Your task to perform on an android device: show emergency info Image 0: 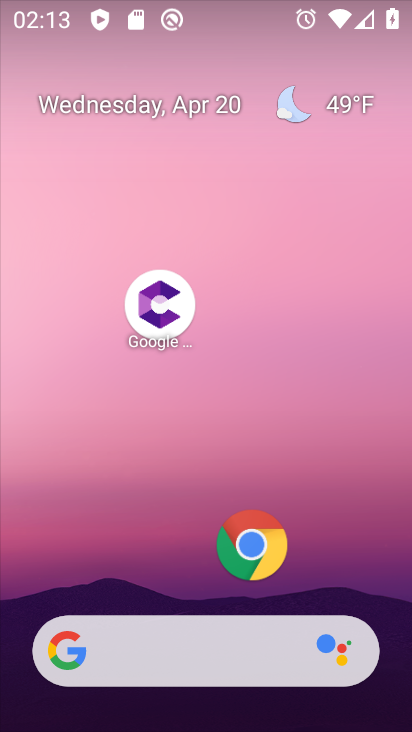
Step 0: drag from (168, 580) to (196, 59)
Your task to perform on an android device: show emergency info Image 1: 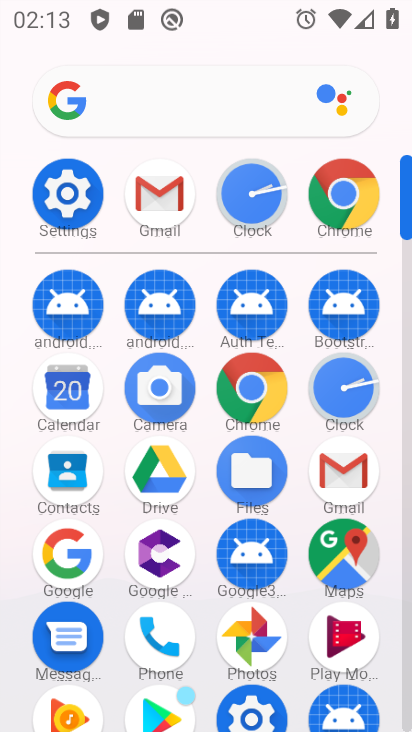
Step 1: click (66, 198)
Your task to perform on an android device: show emergency info Image 2: 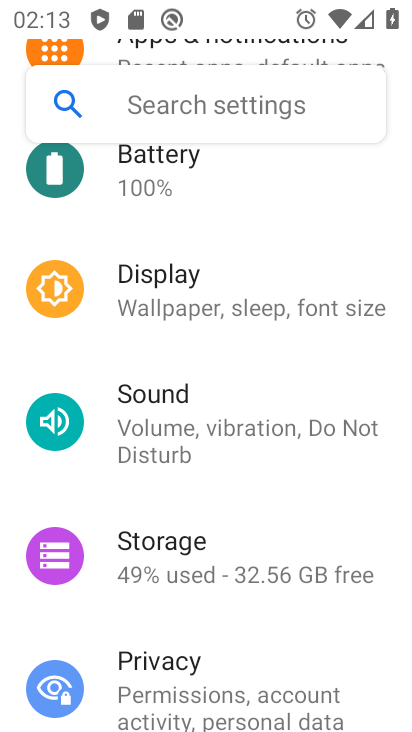
Step 2: drag from (214, 511) to (240, 385)
Your task to perform on an android device: show emergency info Image 3: 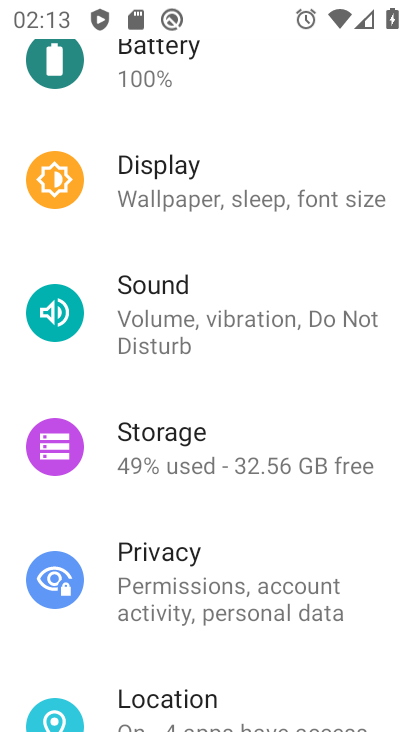
Step 3: drag from (218, 521) to (270, 409)
Your task to perform on an android device: show emergency info Image 4: 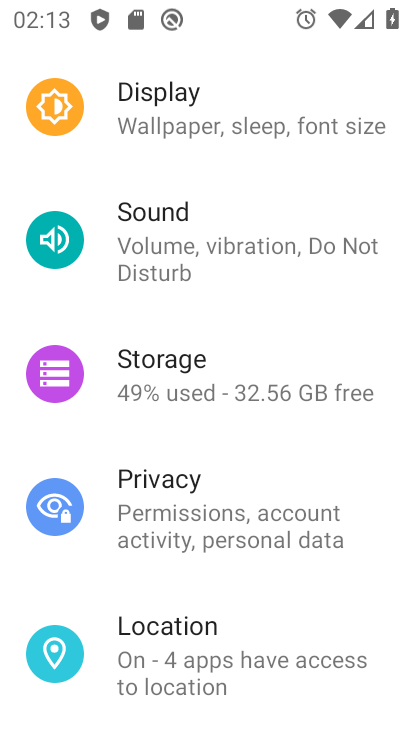
Step 4: drag from (208, 585) to (257, 478)
Your task to perform on an android device: show emergency info Image 5: 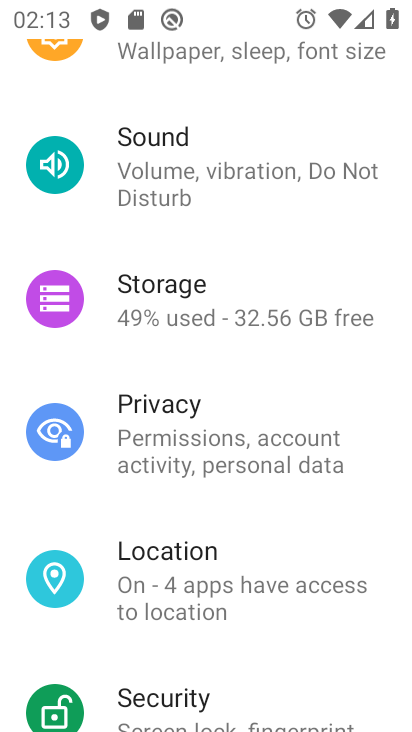
Step 5: drag from (219, 653) to (275, 521)
Your task to perform on an android device: show emergency info Image 6: 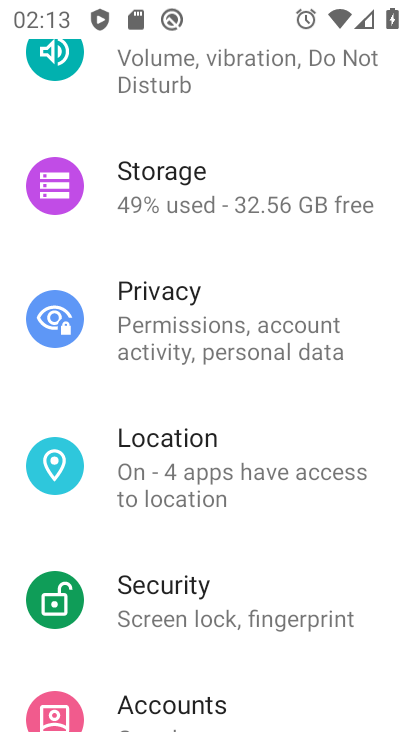
Step 6: drag from (242, 549) to (286, 447)
Your task to perform on an android device: show emergency info Image 7: 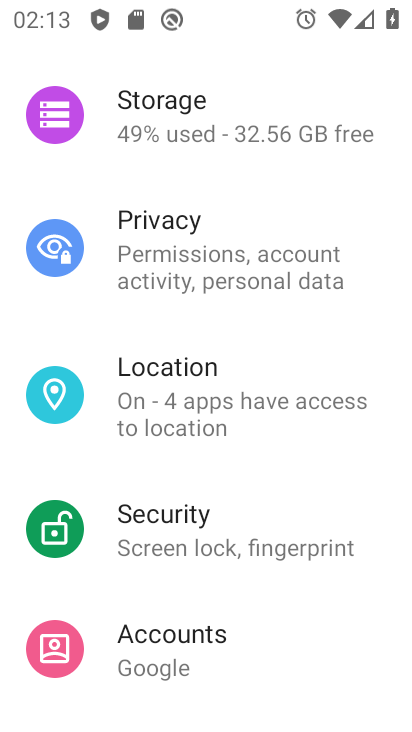
Step 7: drag from (202, 578) to (264, 485)
Your task to perform on an android device: show emergency info Image 8: 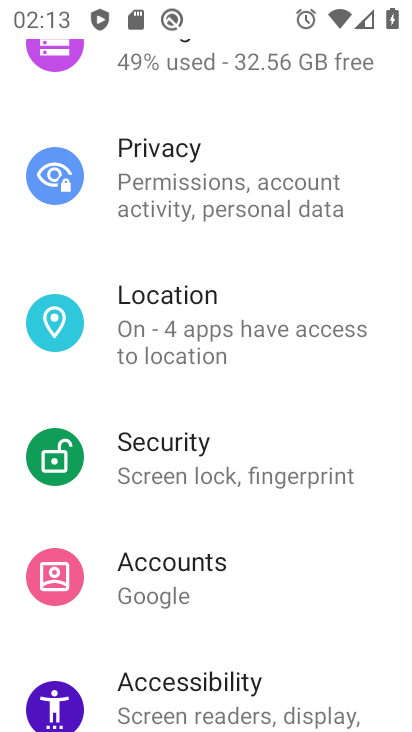
Step 8: drag from (245, 542) to (278, 415)
Your task to perform on an android device: show emergency info Image 9: 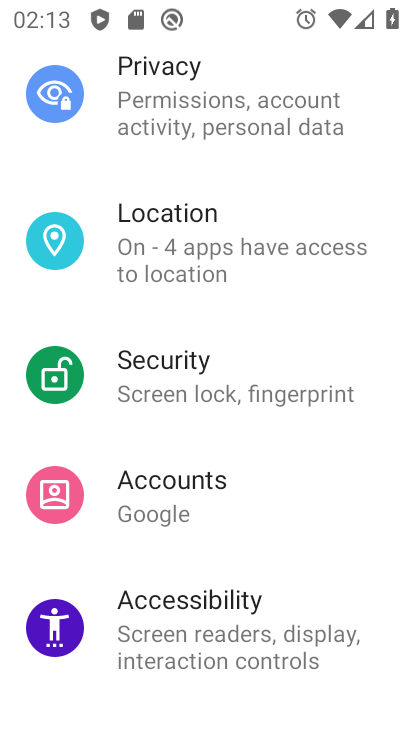
Step 9: drag from (185, 550) to (262, 433)
Your task to perform on an android device: show emergency info Image 10: 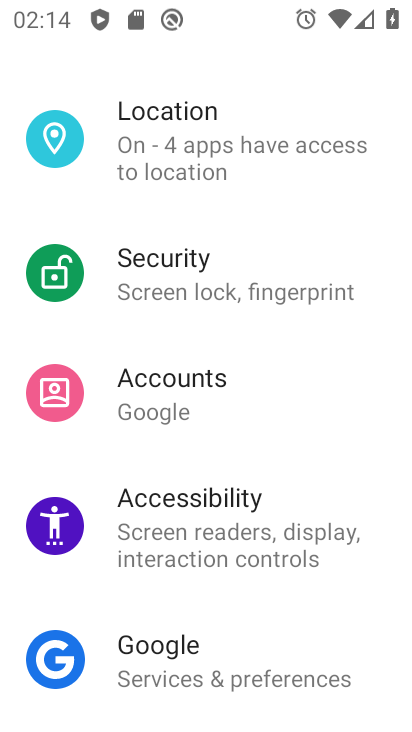
Step 10: drag from (189, 601) to (284, 428)
Your task to perform on an android device: show emergency info Image 11: 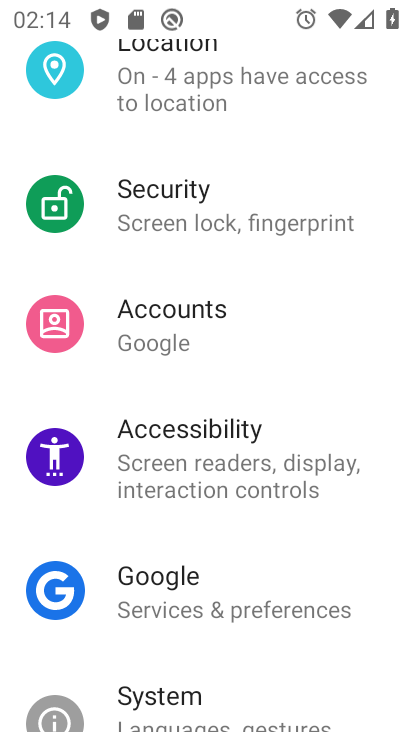
Step 11: drag from (221, 554) to (325, 402)
Your task to perform on an android device: show emergency info Image 12: 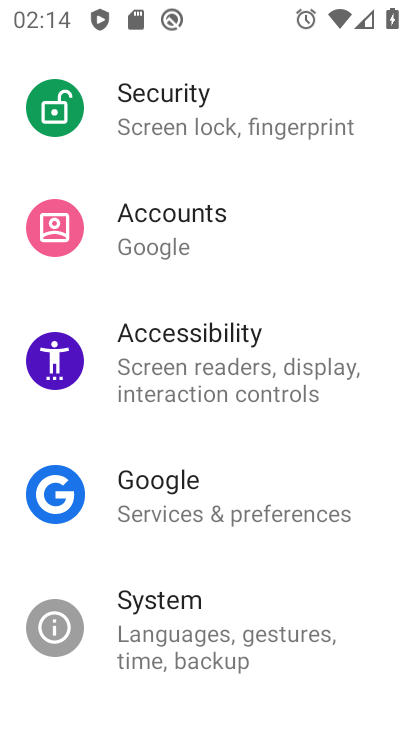
Step 12: drag from (180, 582) to (268, 420)
Your task to perform on an android device: show emergency info Image 13: 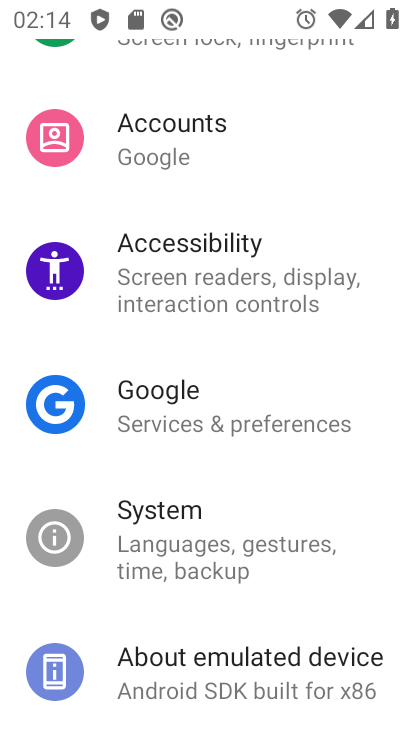
Step 13: click (178, 652)
Your task to perform on an android device: show emergency info Image 14: 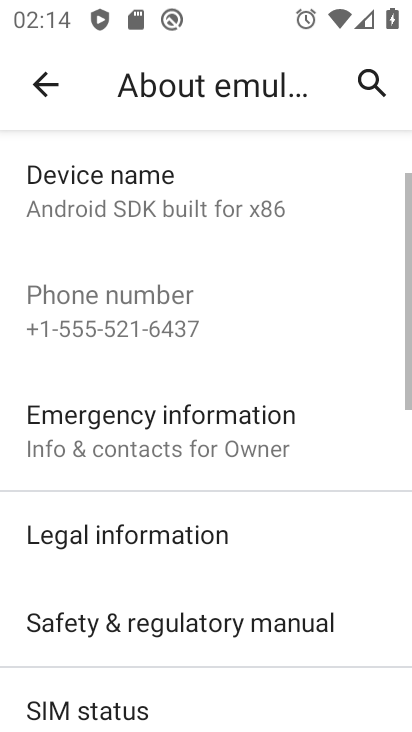
Step 14: click (208, 411)
Your task to perform on an android device: show emergency info Image 15: 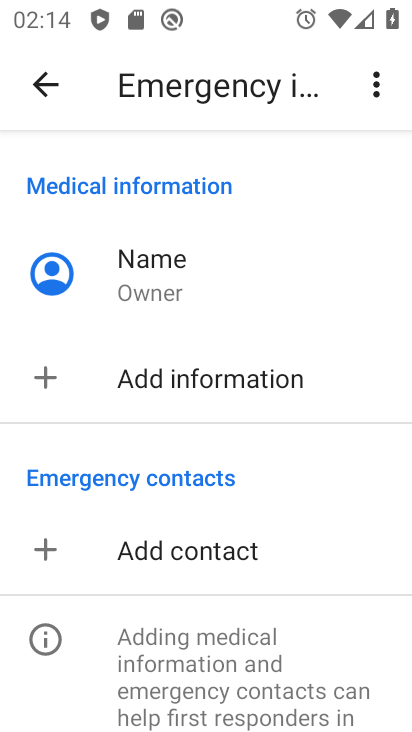
Step 15: task complete